Your task to perform on an android device: turn vacation reply on in the gmail app Image 0: 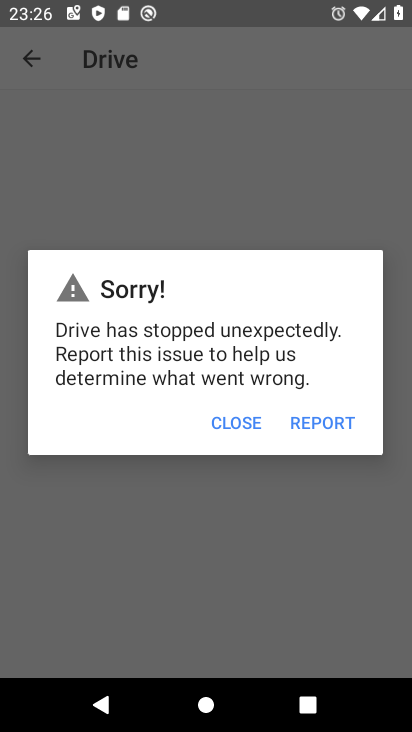
Step 0: press home button
Your task to perform on an android device: turn vacation reply on in the gmail app Image 1: 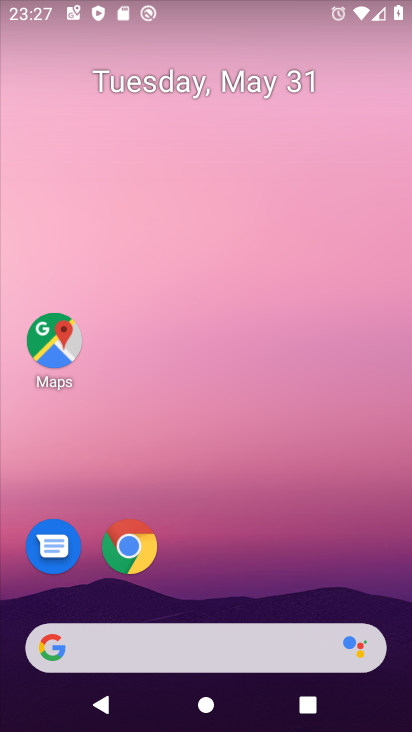
Step 1: drag from (249, 606) to (240, 169)
Your task to perform on an android device: turn vacation reply on in the gmail app Image 2: 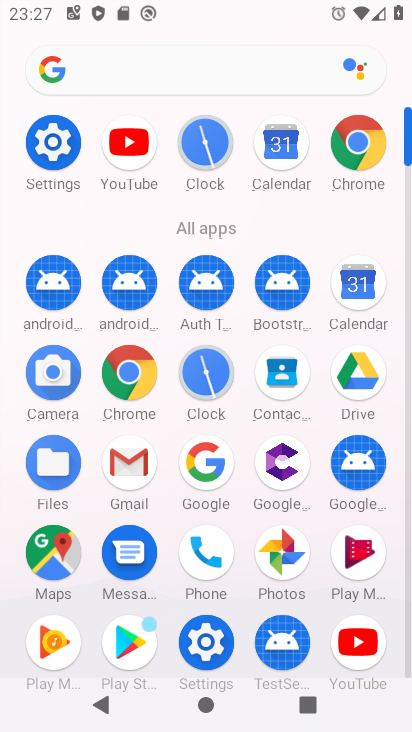
Step 2: click (137, 462)
Your task to perform on an android device: turn vacation reply on in the gmail app Image 3: 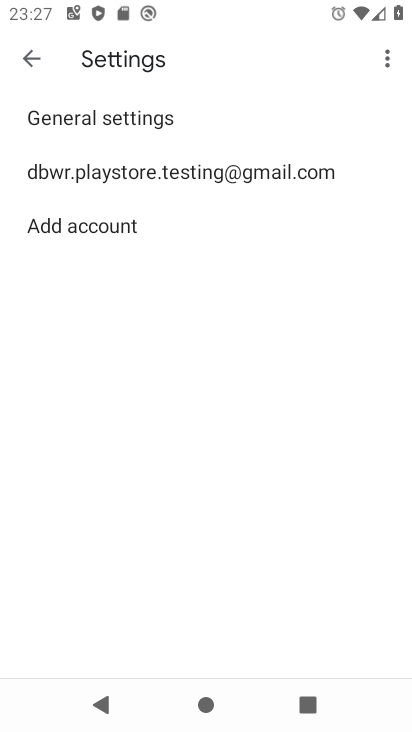
Step 3: click (234, 171)
Your task to perform on an android device: turn vacation reply on in the gmail app Image 4: 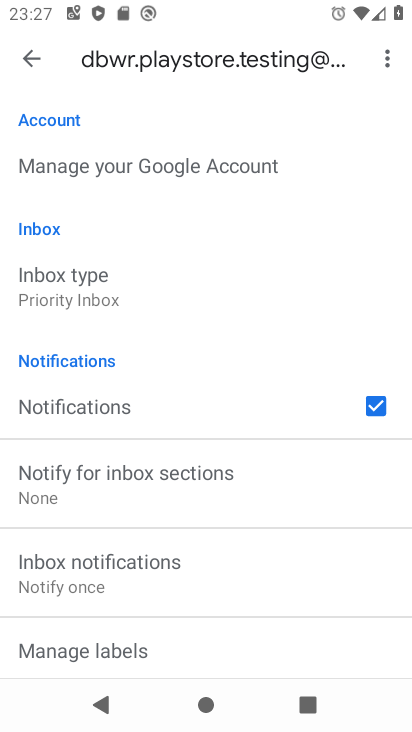
Step 4: drag from (251, 555) to (218, 214)
Your task to perform on an android device: turn vacation reply on in the gmail app Image 5: 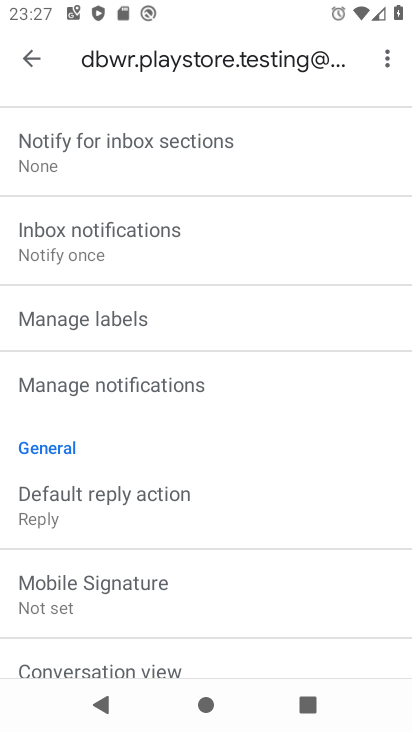
Step 5: drag from (265, 606) to (232, 271)
Your task to perform on an android device: turn vacation reply on in the gmail app Image 6: 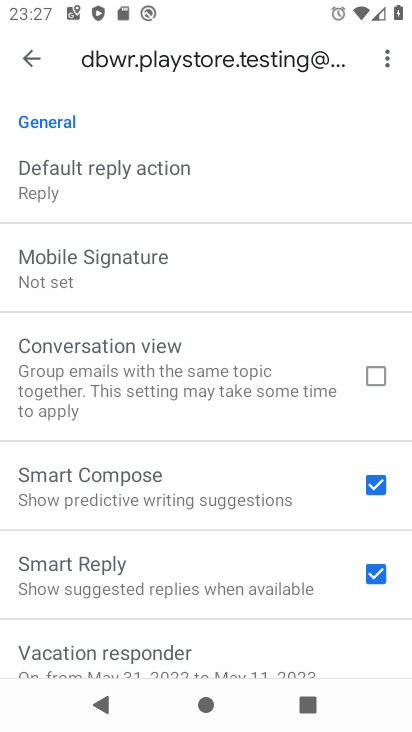
Step 6: drag from (215, 604) to (196, 312)
Your task to perform on an android device: turn vacation reply on in the gmail app Image 7: 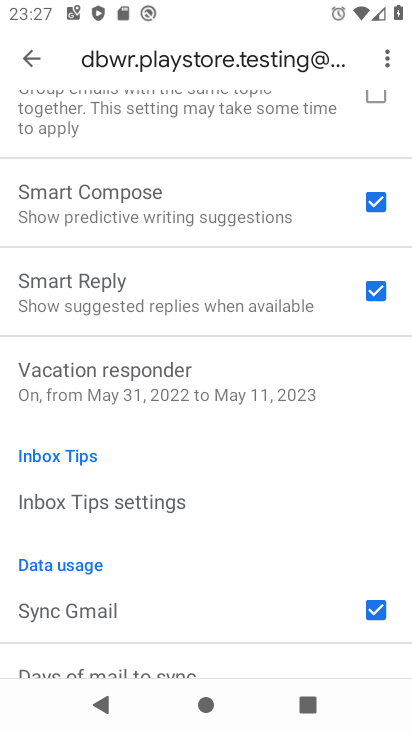
Step 7: click (211, 374)
Your task to perform on an android device: turn vacation reply on in the gmail app Image 8: 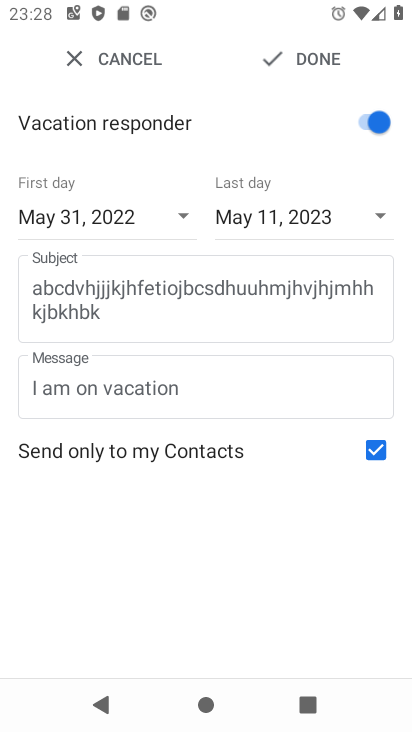
Step 8: click (344, 55)
Your task to perform on an android device: turn vacation reply on in the gmail app Image 9: 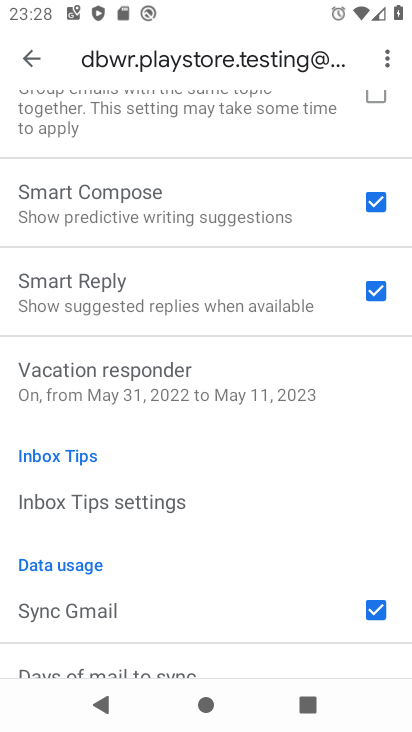
Step 9: task complete